Your task to perform on an android device: turn on sleep mode Image 0: 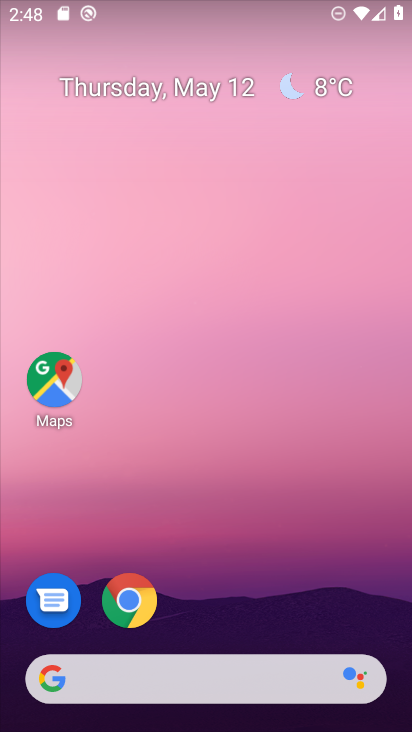
Step 0: drag from (212, 723) to (206, 93)
Your task to perform on an android device: turn on sleep mode Image 1: 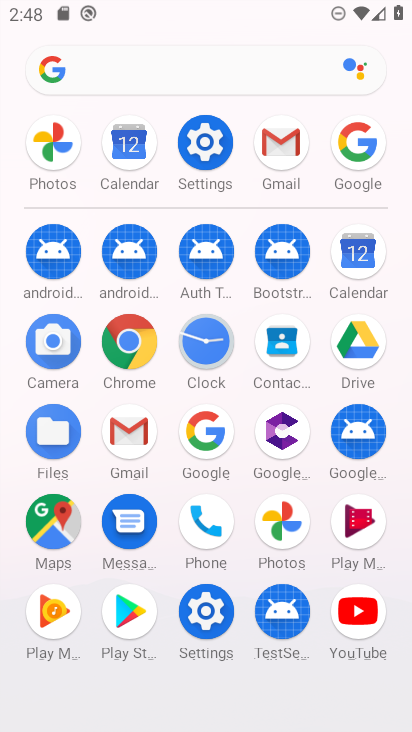
Step 1: click (197, 140)
Your task to perform on an android device: turn on sleep mode Image 2: 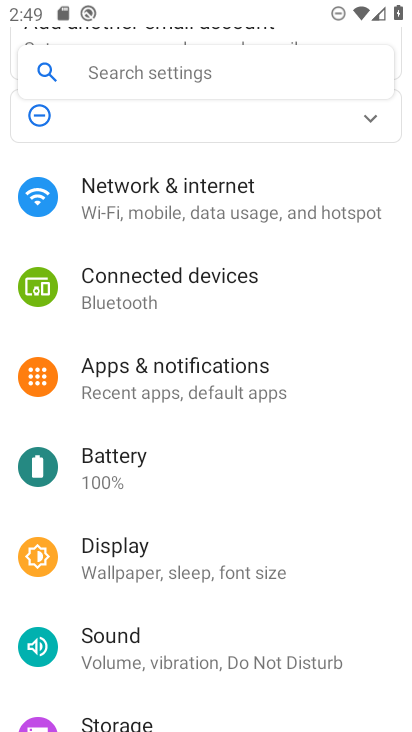
Step 2: drag from (155, 685) to (144, 351)
Your task to perform on an android device: turn on sleep mode Image 3: 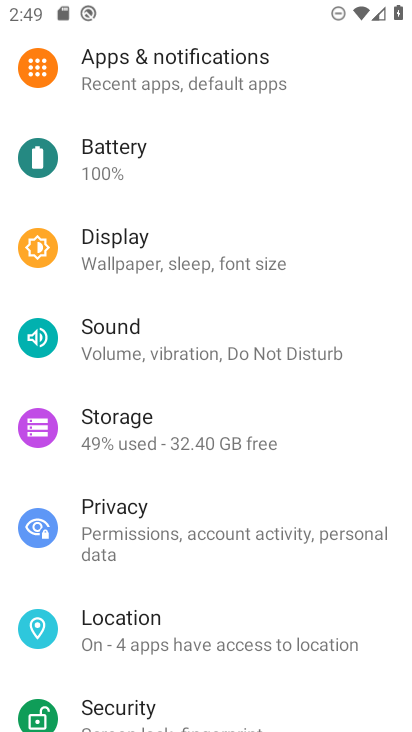
Step 3: drag from (183, 665) to (186, 393)
Your task to perform on an android device: turn on sleep mode Image 4: 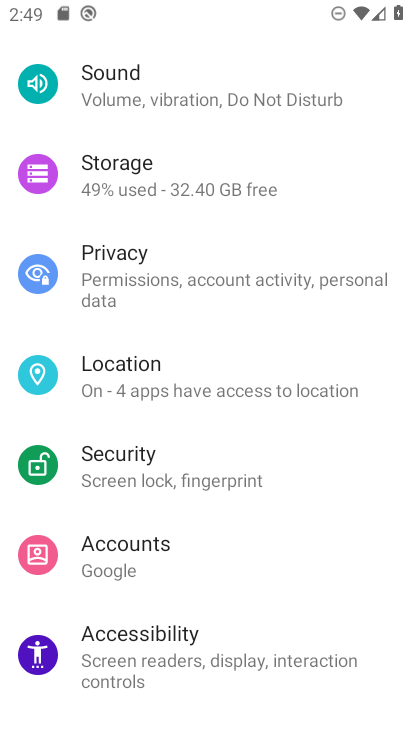
Step 4: drag from (202, 135) to (210, 492)
Your task to perform on an android device: turn on sleep mode Image 5: 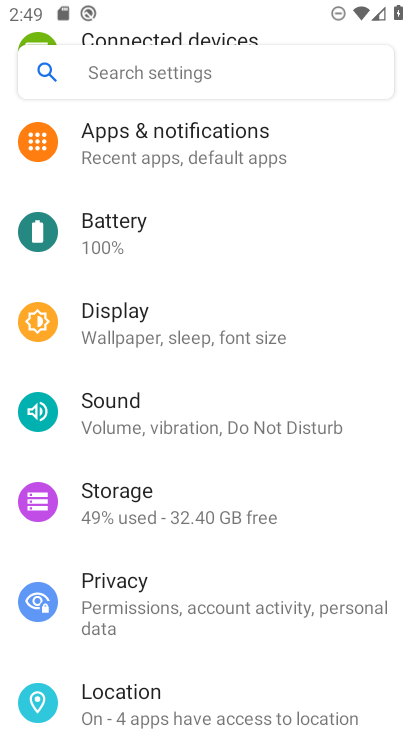
Step 5: click (181, 335)
Your task to perform on an android device: turn on sleep mode Image 6: 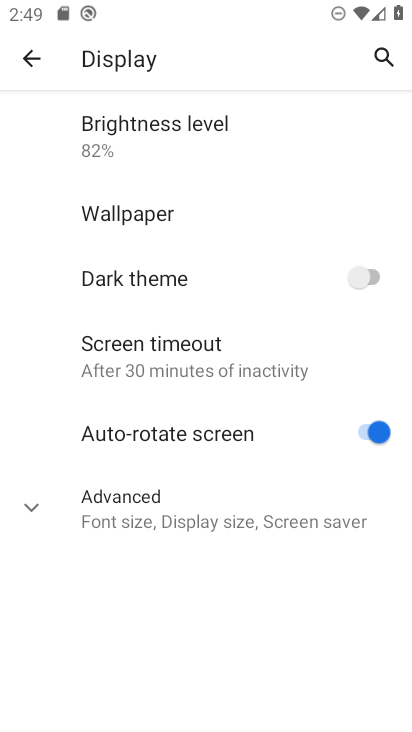
Step 6: task complete